Your task to perform on an android device: Open internet settings Image 0: 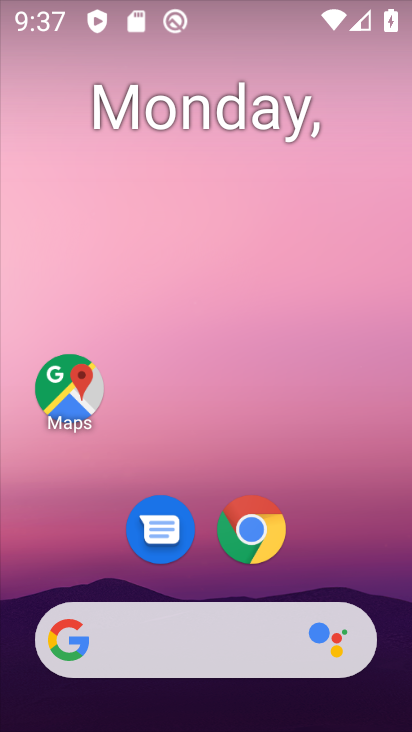
Step 0: click (338, 128)
Your task to perform on an android device: Open internet settings Image 1: 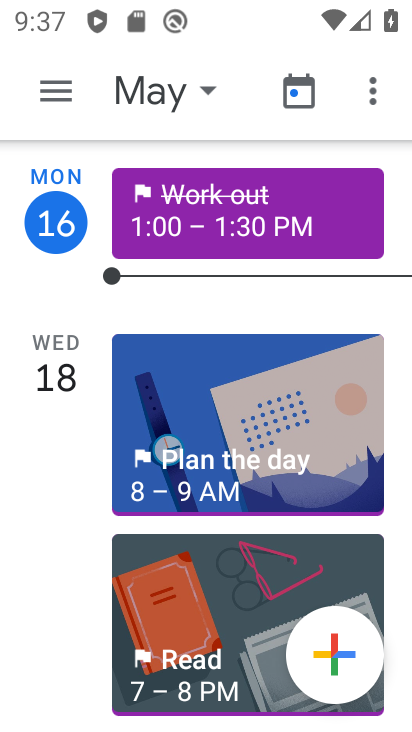
Step 1: press back button
Your task to perform on an android device: Open internet settings Image 2: 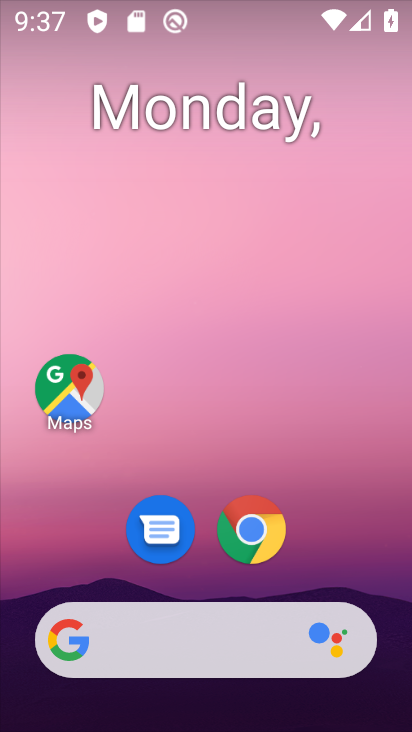
Step 2: drag from (316, 513) to (407, 169)
Your task to perform on an android device: Open internet settings Image 3: 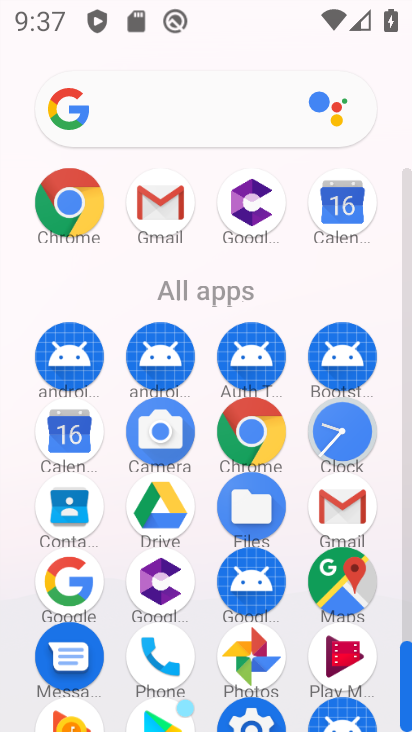
Step 3: drag from (153, 586) to (291, 307)
Your task to perform on an android device: Open internet settings Image 4: 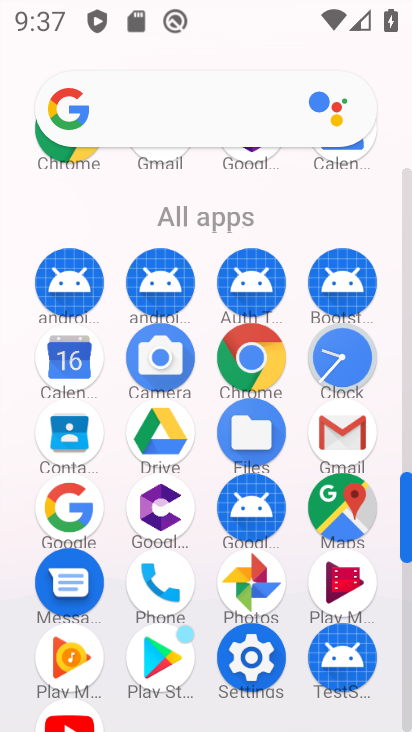
Step 4: click (253, 663)
Your task to perform on an android device: Open internet settings Image 5: 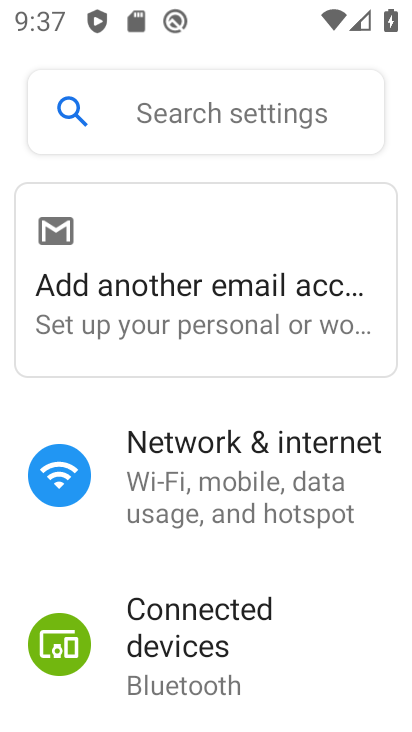
Step 5: click (222, 515)
Your task to perform on an android device: Open internet settings Image 6: 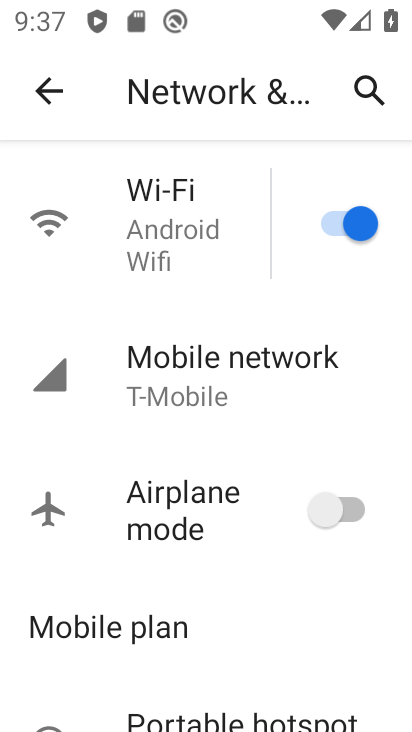
Step 6: task complete